Your task to perform on an android device: toggle translation in the chrome app Image 0: 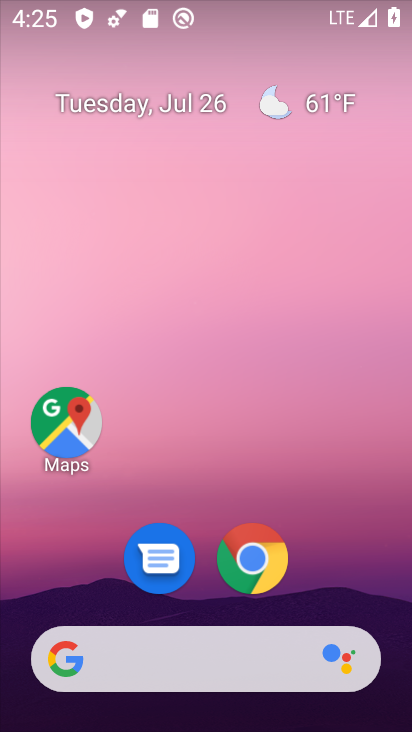
Step 0: click (260, 557)
Your task to perform on an android device: toggle translation in the chrome app Image 1: 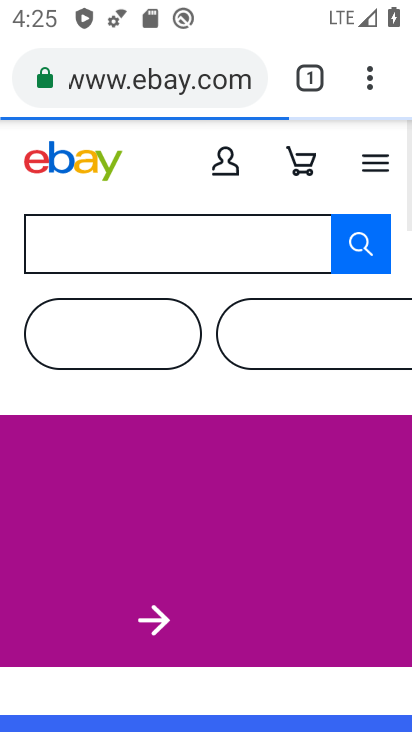
Step 1: drag from (372, 76) to (123, 601)
Your task to perform on an android device: toggle translation in the chrome app Image 2: 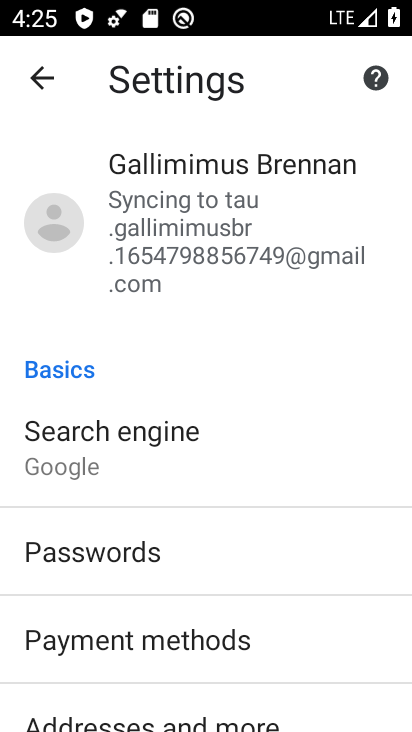
Step 2: drag from (125, 611) to (244, 54)
Your task to perform on an android device: toggle translation in the chrome app Image 3: 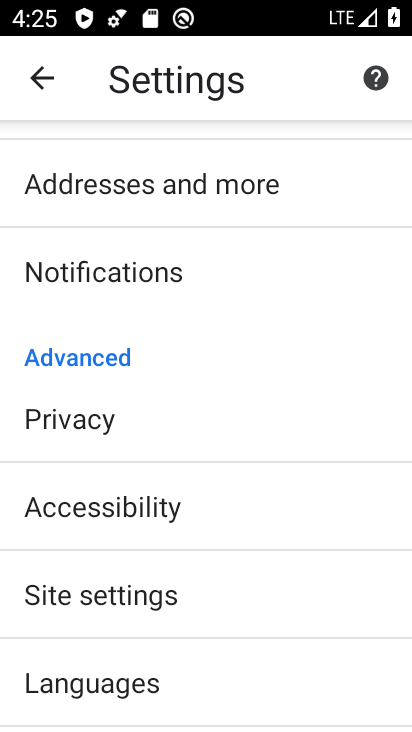
Step 3: click (111, 669)
Your task to perform on an android device: toggle translation in the chrome app Image 4: 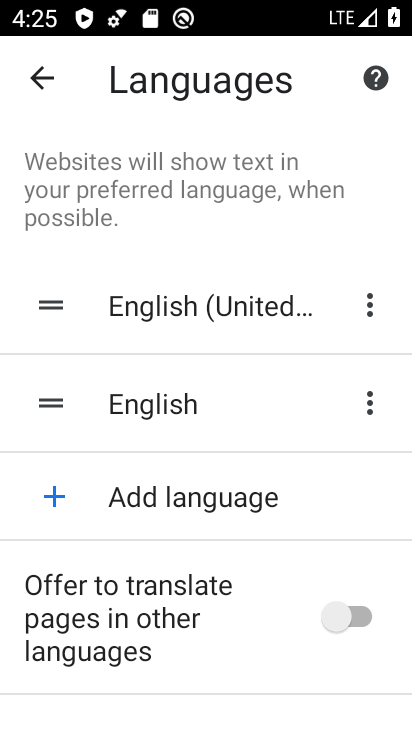
Step 4: click (337, 621)
Your task to perform on an android device: toggle translation in the chrome app Image 5: 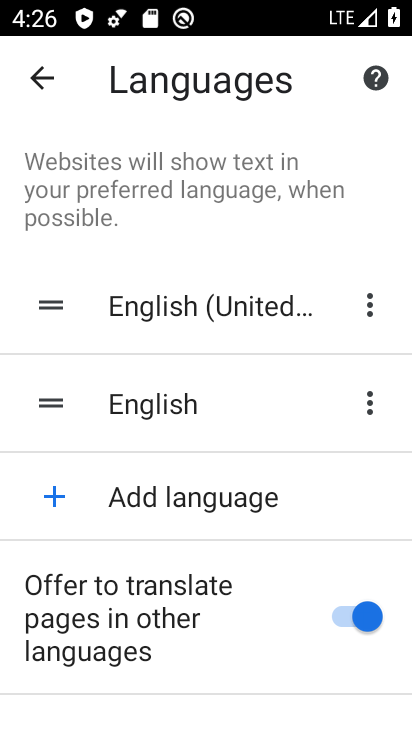
Step 5: task complete